Your task to perform on an android device: turn off sleep mode Image 0: 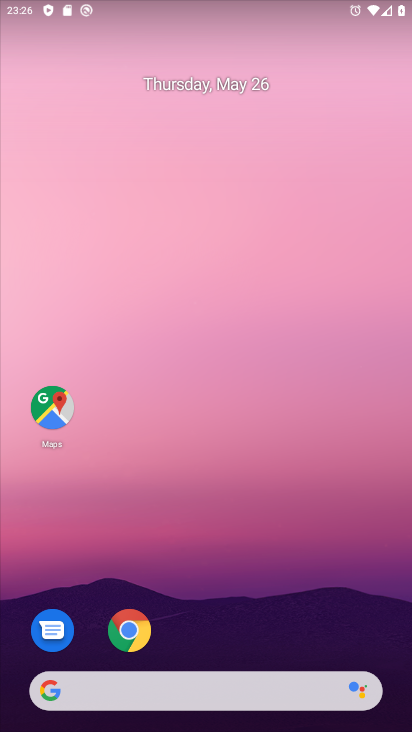
Step 0: drag from (229, 555) to (288, 166)
Your task to perform on an android device: turn off sleep mode Image 1: 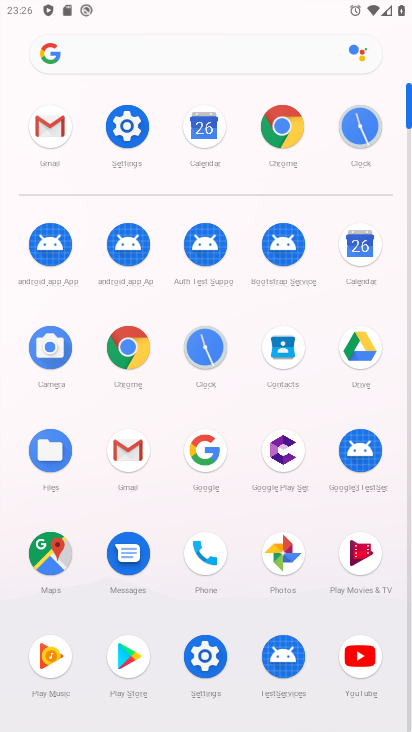
Step 1: click (128, 125)
Your task to perform on an android device: turn off sleep mode Image 2: 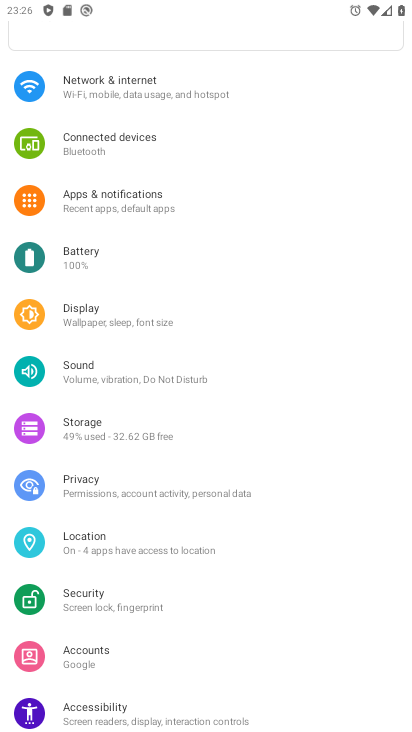
Step 2: drag from (208, 157) to (175, 292)
Your task to perform on an android device: turn off sleep mode Image 3: 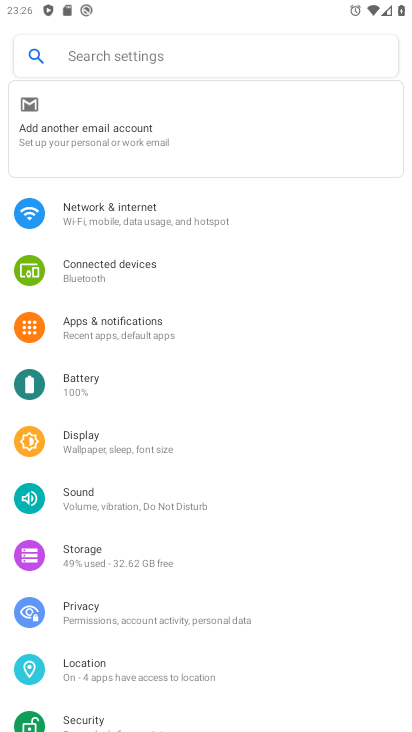
Step 3: drag from (89, 414) to (110, 332)
Your task to perform on an android device: turn off sleep mode Image 4: 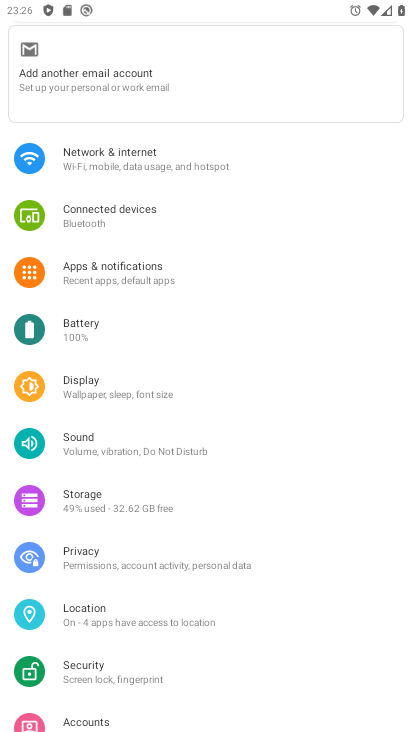
Step 4: drag from (110, 487) to (134, 421)
Your task to perform on an android device: turn off sleep mode Image 5: 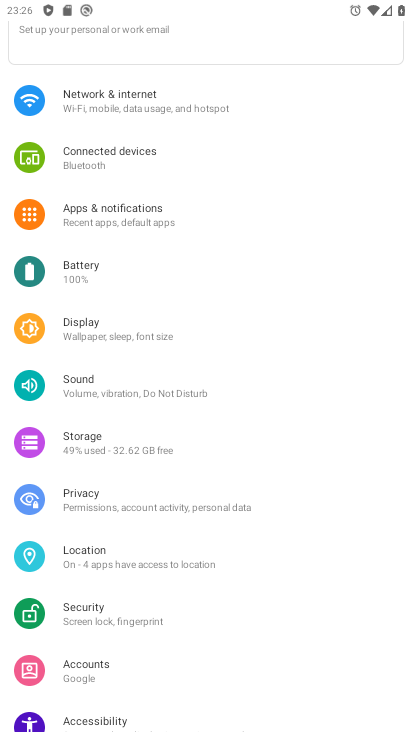
Step 5: drag from (133, 485) to (143, 418)
Your task to perform on an android device: turn off sleep mode Image 6: 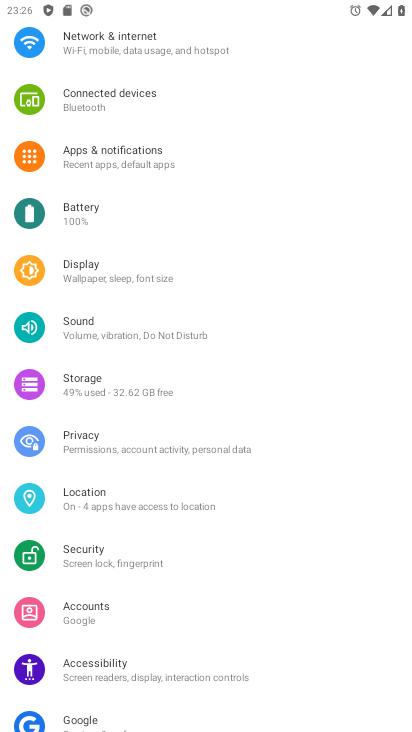
Step 6: drag from (165, 232) to (149, 349)
Your task to perform on an android device: turn off sleep mode Image 7: 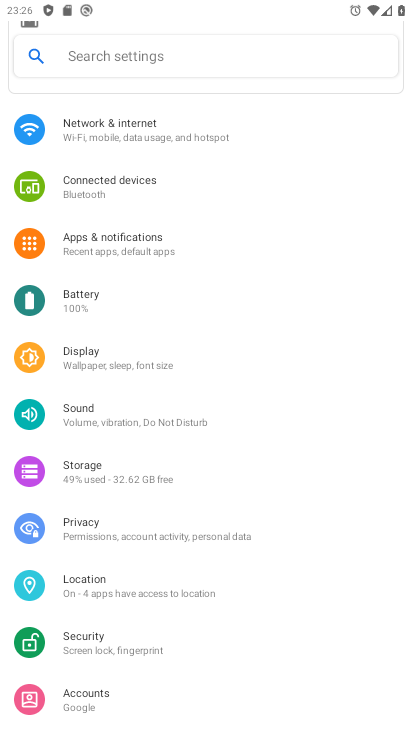
Step 7: drag from (121, 371) to (161, 310)
Your task to perform on an android device: turn off sleep mode Image 8: 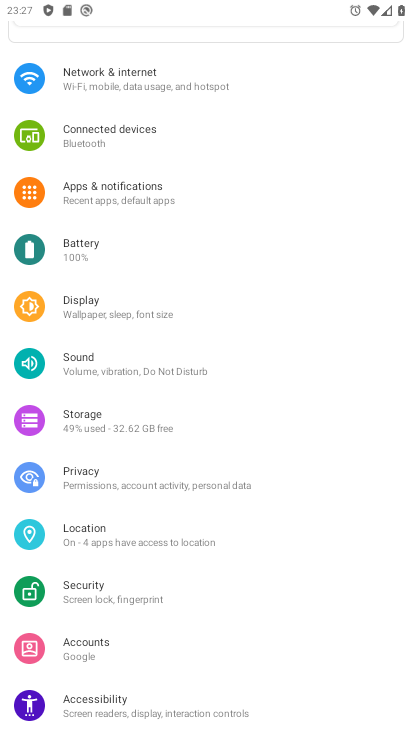
Step 8: click (120, 317)
Your task to perform on an android device: turn off sleep mode Image 9: 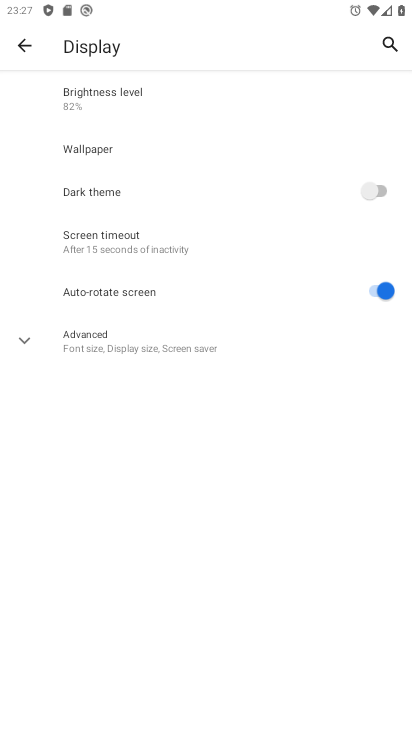
Step 9: click (160, 249)
Your task to perform on an android device: turn off sleep mode Image 10: 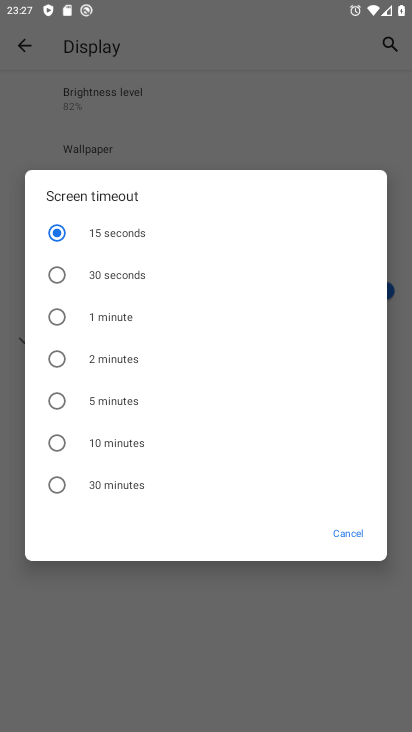
Step 10: click (52, 491)
Your task to perform on an android device: turn off sleep mode Image 11: 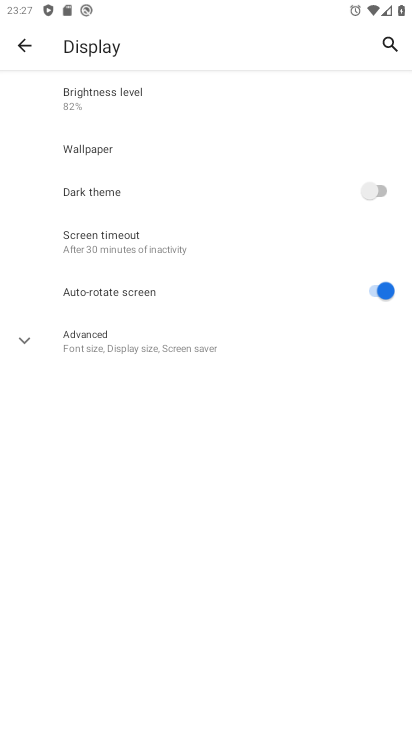
Step 11: click (117, 347)
Your task to perform on an android device: turn off sleep mode Image 12: 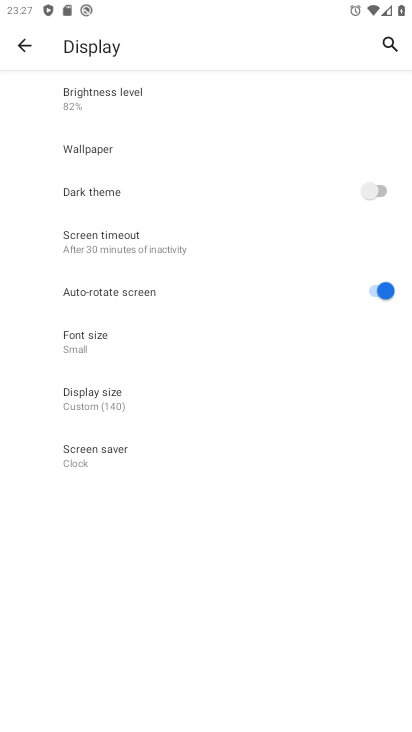
Step 12: click (92, 394)
Your task to perform on an android device: turn off sleep mode Image 13: 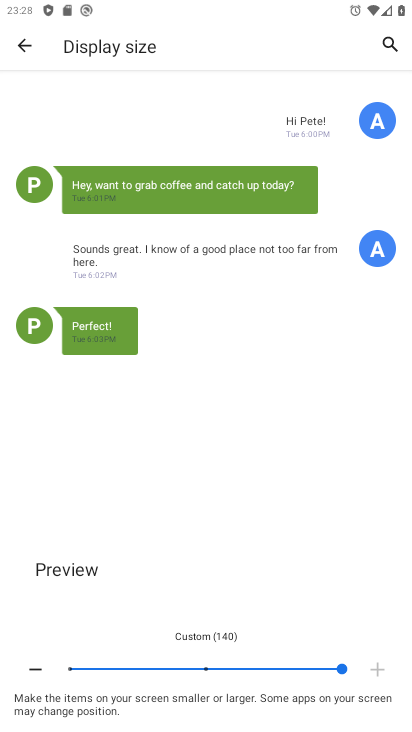
Step 13: task complete